Your task to perform on an android device: Go to battery settings Image 0: 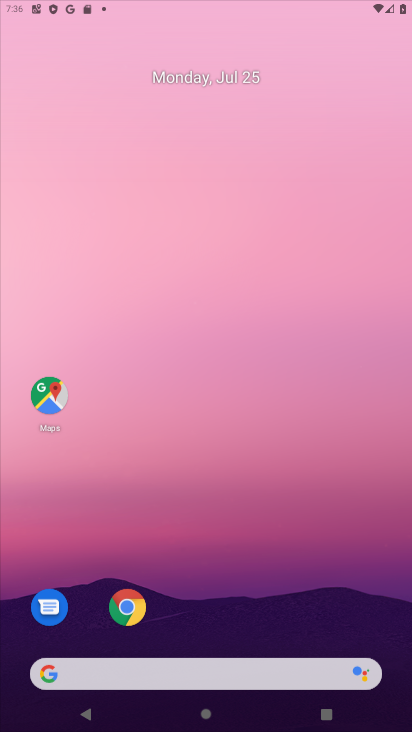
Step 0: drag from (227, 629) to (292, 99)
Your task to perform on an android device: Go to battery settings Image 1: 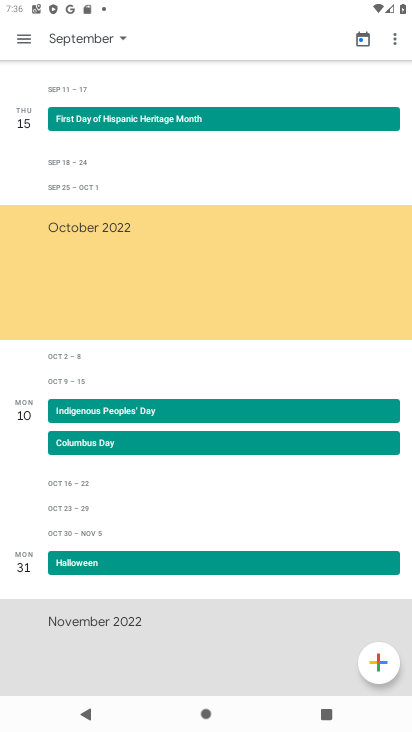
Step 1: press home button
Your task to perform on an android device: Go to battery settings Image 2: 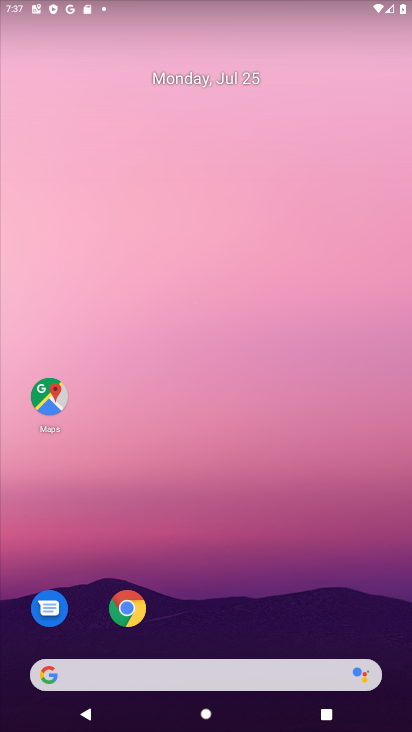
Step 2: drag from (253, 508) to (342, 43)
Your task to perform on an android device: Go to battery settings Image 3: 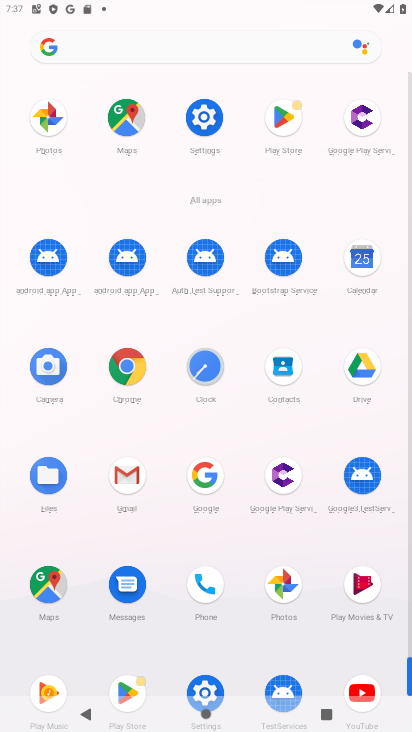
Step 3: click (206, 133)
Your task to perform on an android device: Go to battery settings Image 4: 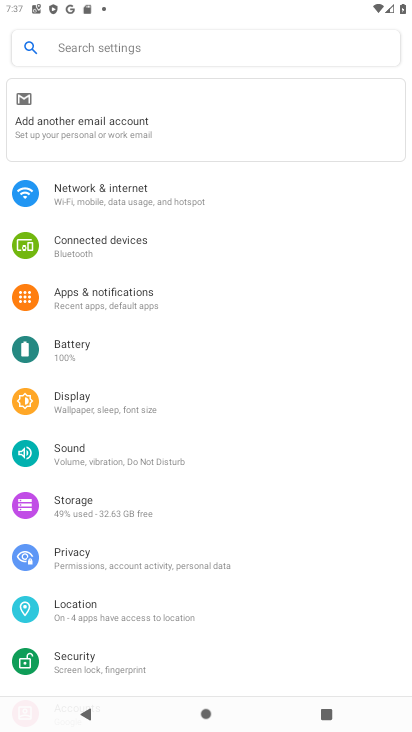
Step 4: click (85, 358)
Your task to perform on an android device: Go to battery settings Image 5: 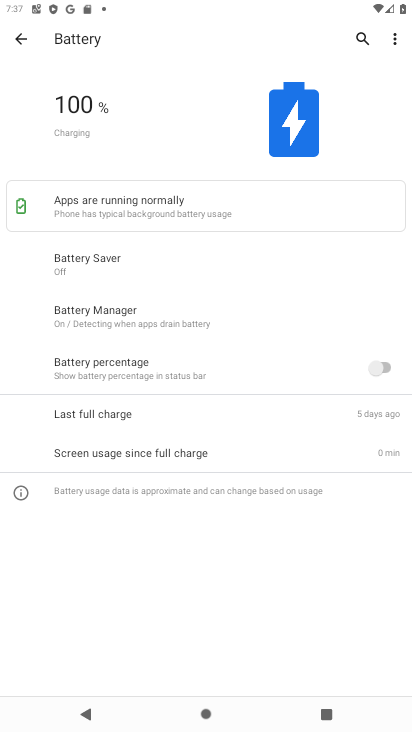
Step 5: task complete